Your task to perform on an android device: Go to Wikipedia Image 0: 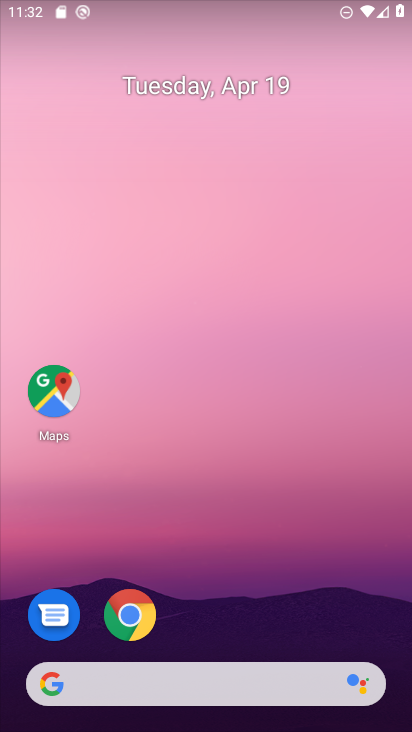
Step 0: drag from (186, 661) to (161, 312)
Your task to perform on an android device: Go to Wikipedia Image 1: 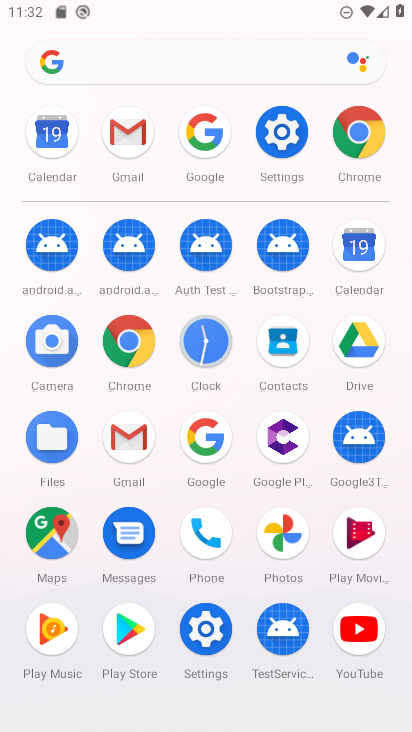
Step 1: click (198, 441)
Your task to perform on an android device: Go to Wikipedia Image 2: 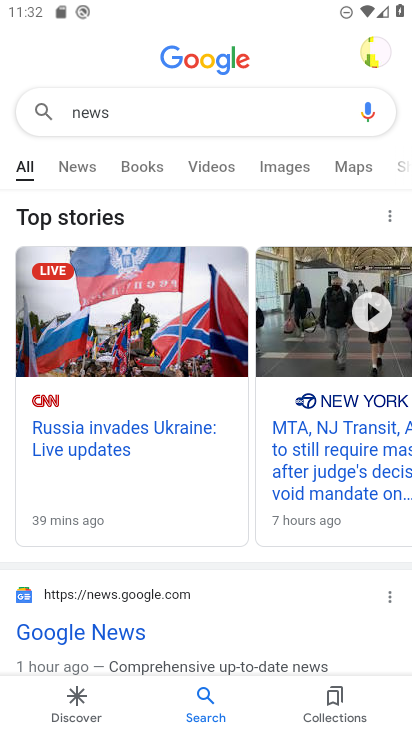
Step 2: click (103, 117)
Your task to perform on an android device: Go to Wikipedia Image 3: 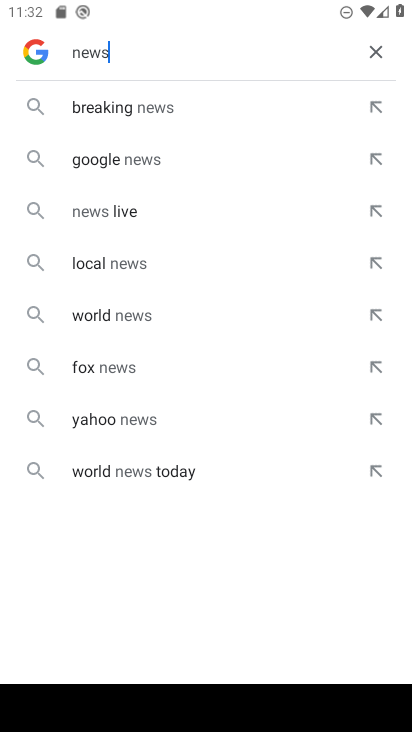
Step 3: click (379, 48)
Your task to perform on an android device: Go to Wikipedia Image 4: 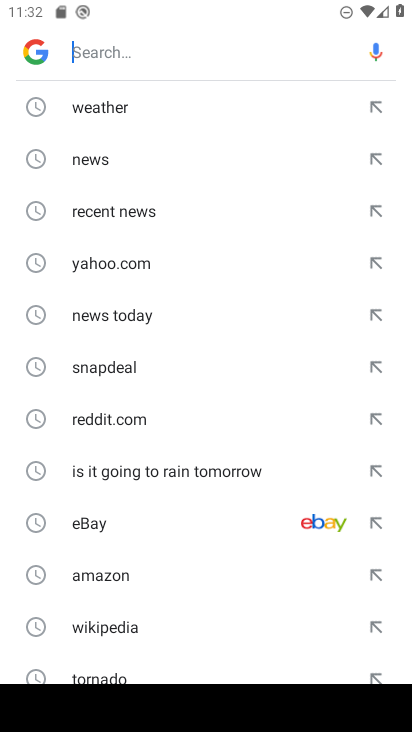
Step 4: click (109, 627)
Your task to perform on an android device: Go to Wikipedia Image 5: 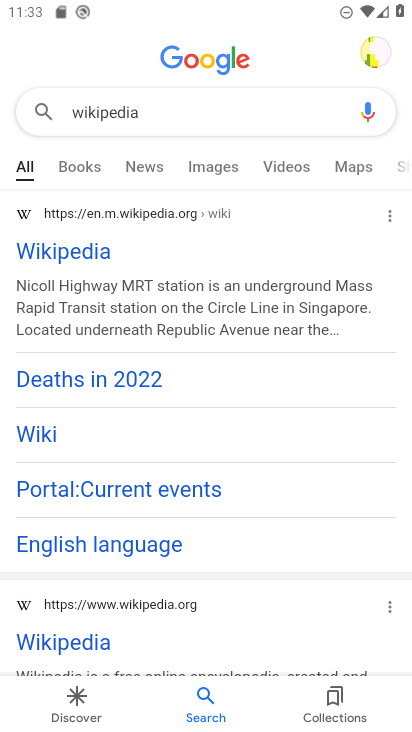
Step 5: click (58, 249)
Your task to perform on an android device: Go to Wikipedia Image 6: 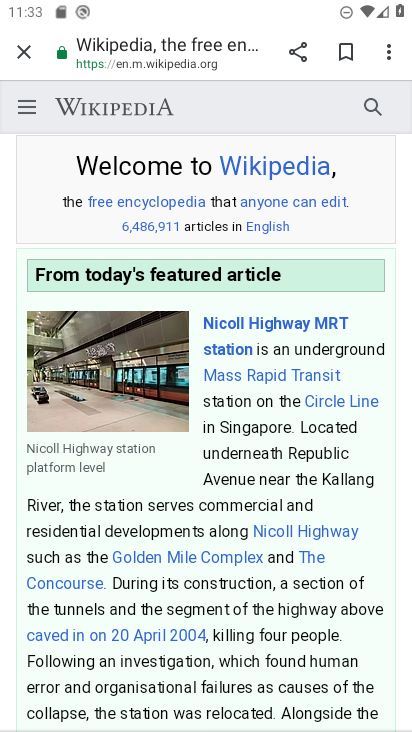
Step 6: task complete